Your task to perform on an android device: Find the nearest electronics store that's open tomorrow Image 0: 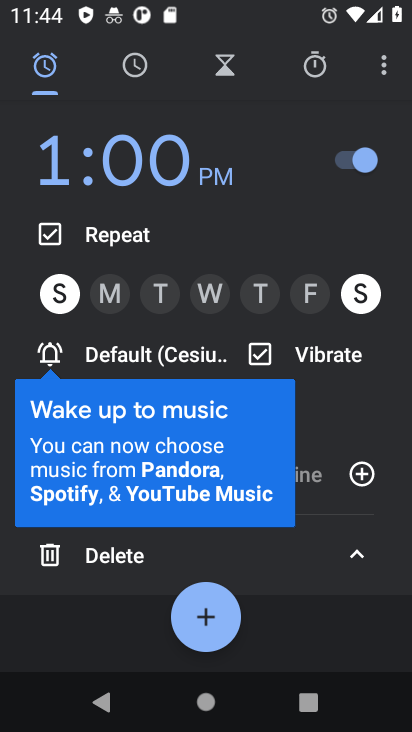
Step 0: press home button
Your task to perform on an android device: Find the nearest electronics store that's open tomorrow Image 1: 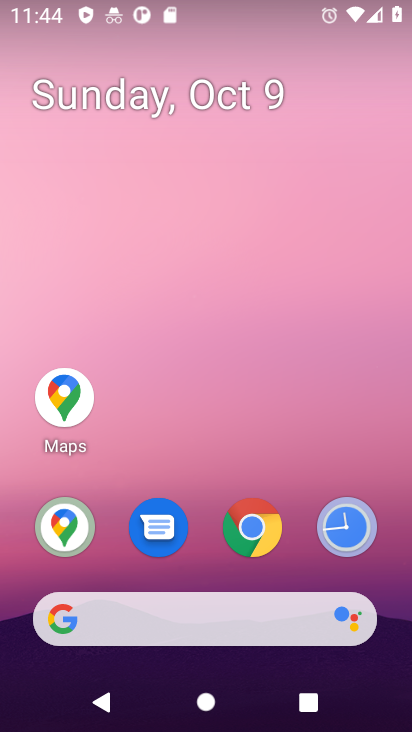
Step 1: click (69, 405)
Your task to perform on an android device: Find the nearest electronics store that's open tomorrow Image 2: 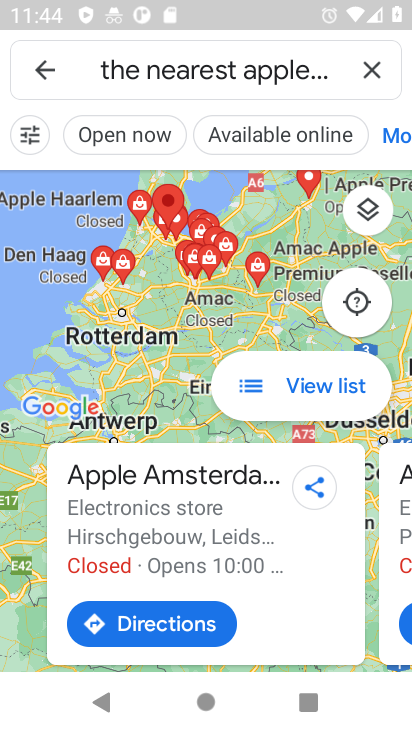
Step 2: click (186, 80)
Your task to perform on an android device: Find the nearest electronics store that's open tomorrow Image 3: 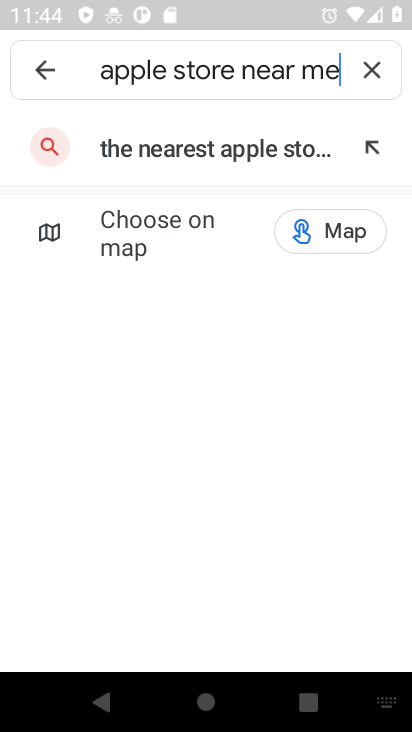
Step 3: click (373, 70)
Your task to perform on an android device: Find the nearest electronics store that's open tomorrow Image 4: 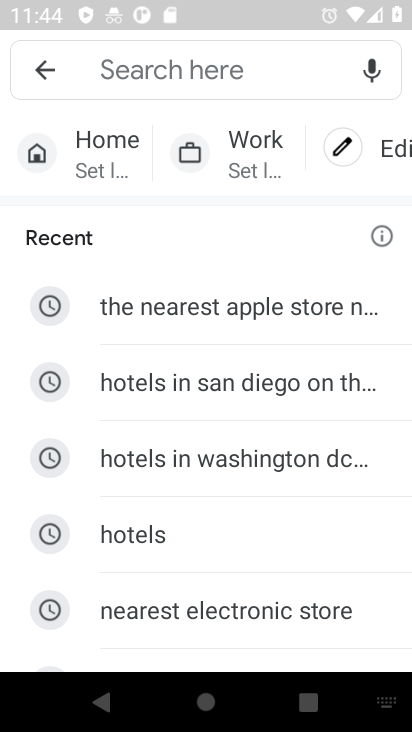
Step 4: type "the nearest electronics store that's open tomorrow"
Your task to perform on an android device: Find the nearest electronics store that's open tomorrow Image 5: 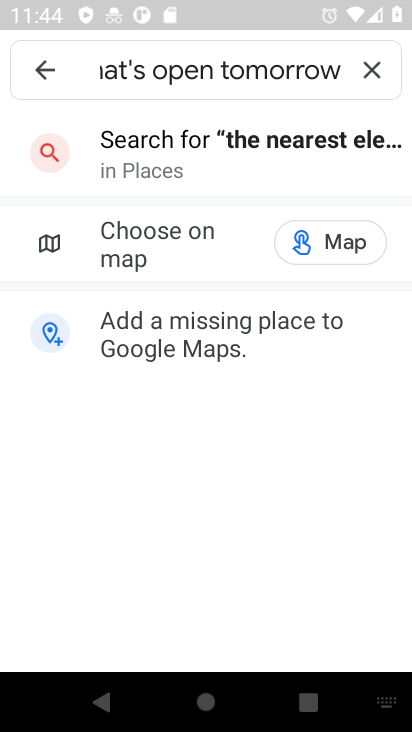
Step 5: click (250, 174)
Your task to perform on an android device: Find the nearest electronics store that's open tomorrow Image 6: 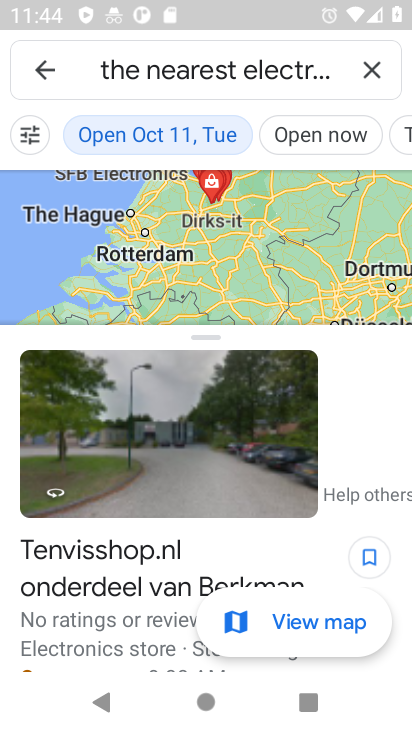
Step 6: task complete